Your task to perform on an android device: turn off data saver in the chrome app Image 0: 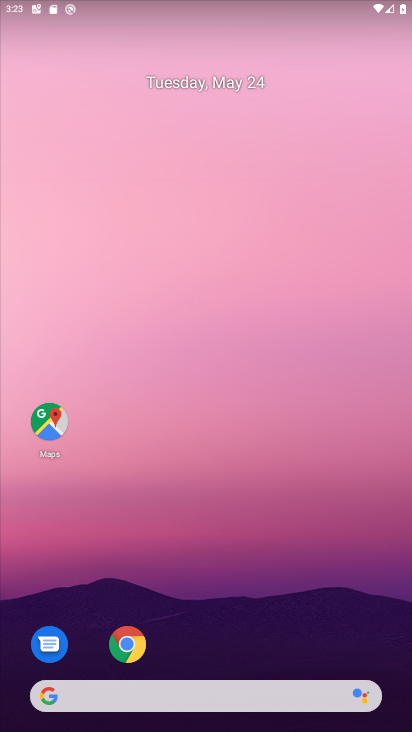
Step 0: click (115, 643)
Your task to perform on an android device: turn off data saver in the chrome app Image 1: 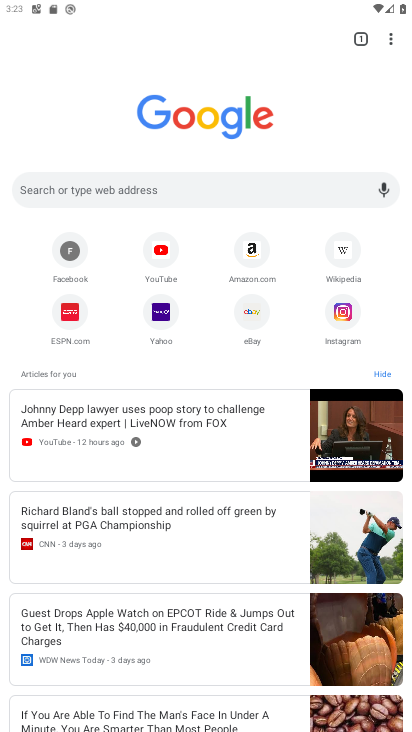
Step 1: click (390, 39)
Your task to perform on an android device: turn off data saver in the chrome app Image 2: 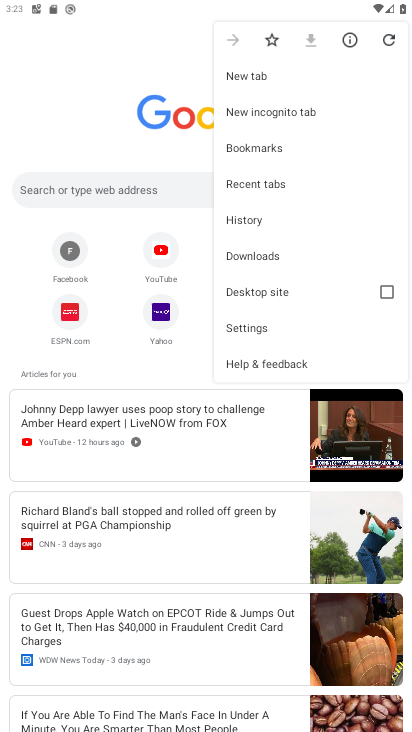
Step 2: click (267, 319)
Your task to perform on an android device: turn off data saver in the chrome app Image 3: 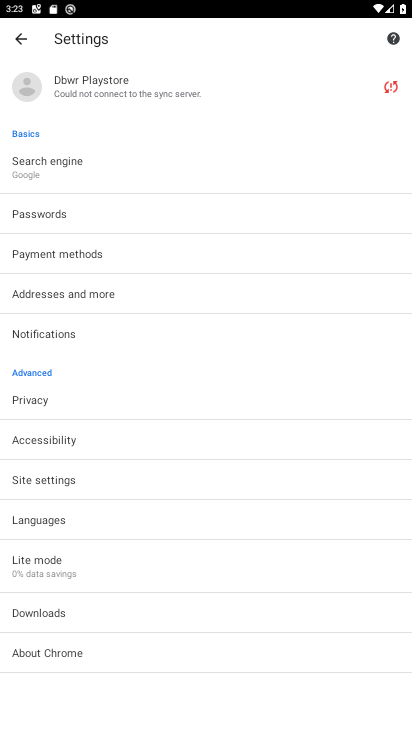
Step 3: click (205, 567)
Your task to perform on an android device: turn off data saver in the chrome app Image 4: 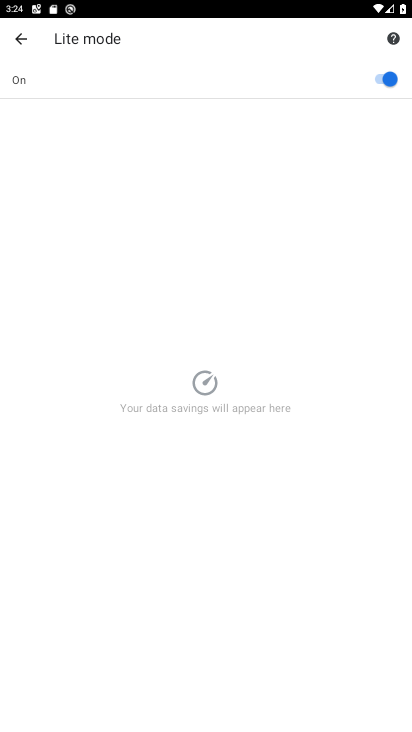
Step 4: click (380, 78)
Your task to perform on an android device: turn off data saver in the chrome app Image 5: 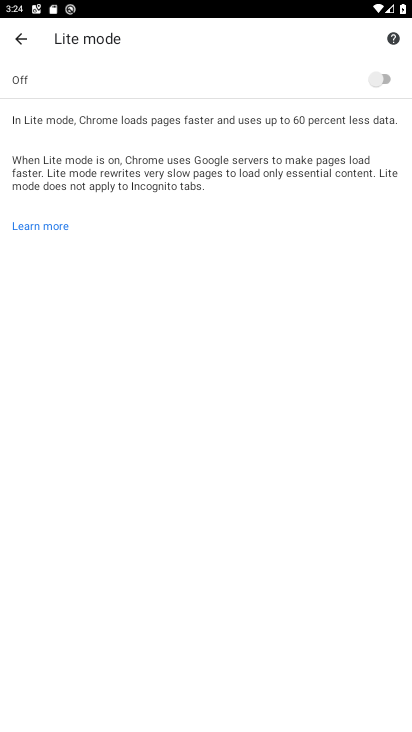
Step 5: task complete